Your task to perform on an android device: turn smart compose on in the gmail app Image 0: 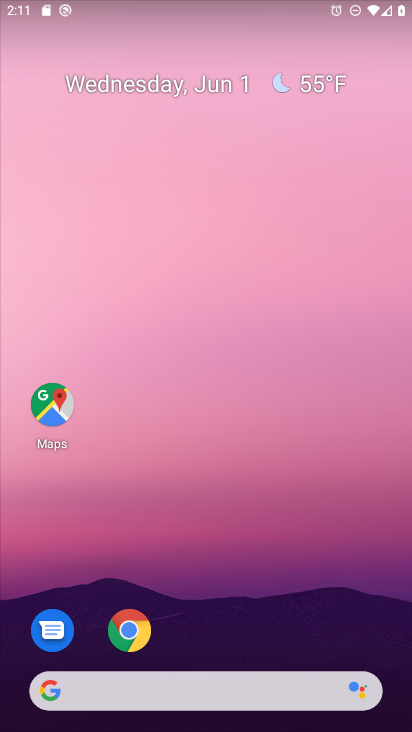
Step 0: drag from (272, 690) to (378, 64)
Your task to perform on an android device: turn smart compose on in the gmail app Image 1: 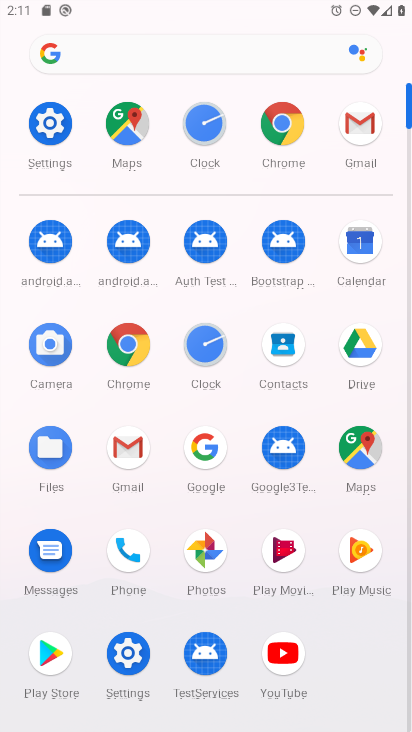
Step 1: click (134, 449)
Your task to perform on an android device: turn smart compose on in the gmail app Image 2: 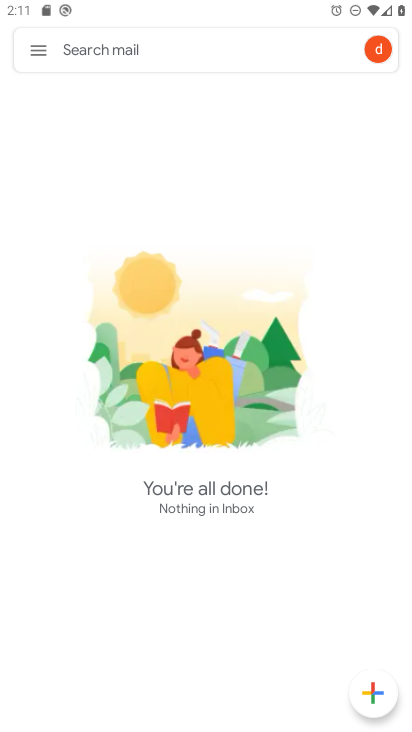
Step 2: click (36, 45)
Your task to perform on an android device: turn smart compose on in the gmail app Image 3: 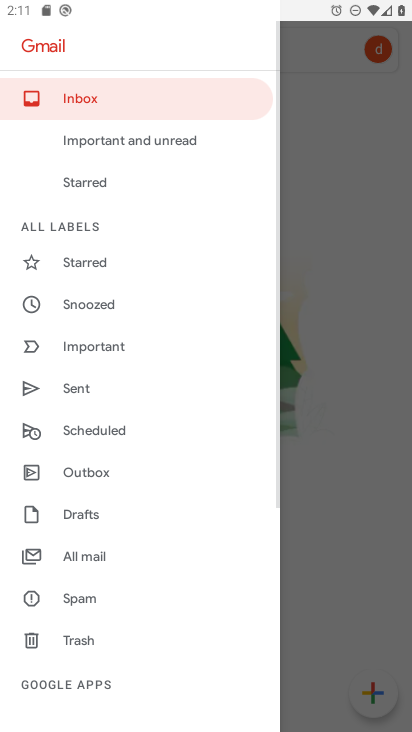
Step 3: drag from (157, 657) to (166, 262)
Your task to perform on an android device: turn smart compose on in the gmail app Image 4: 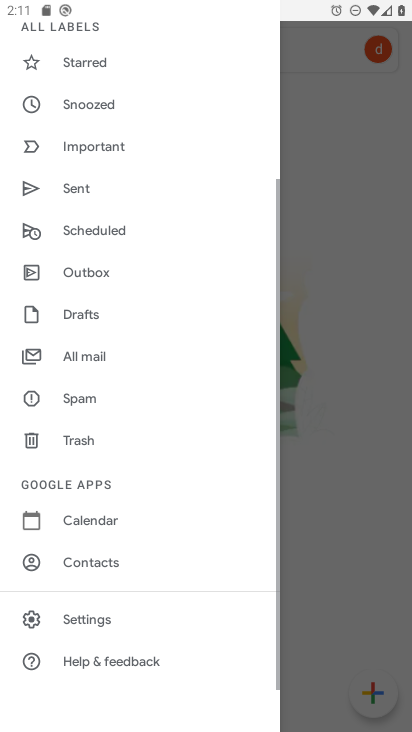
Step 4: click (85, 622)
Your task to perform on an android device: turn smart compose on in the gmail app Image 5: 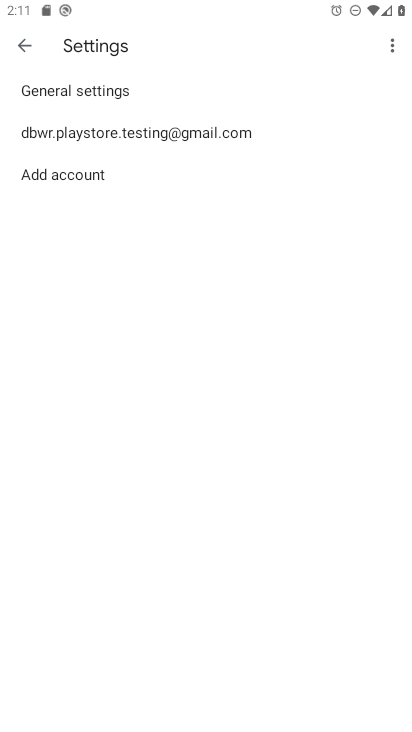
Step 5: click (261, 135)
Your task to perform on an android device: turn smart compose on in the gmail app Image 6: 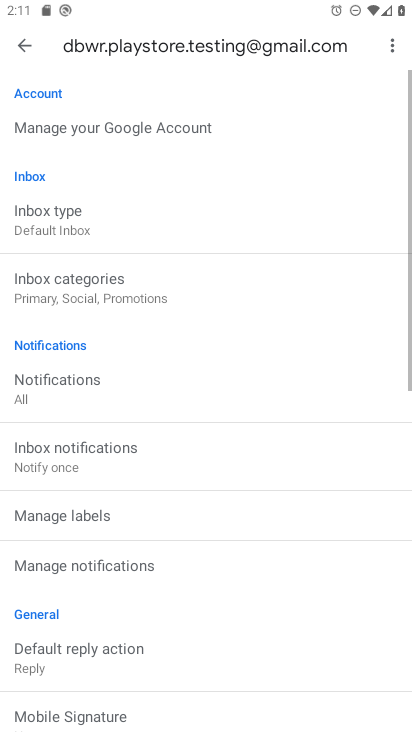
Step 6: task complete